Your task to perform on an android device: Open the settings Image 0: 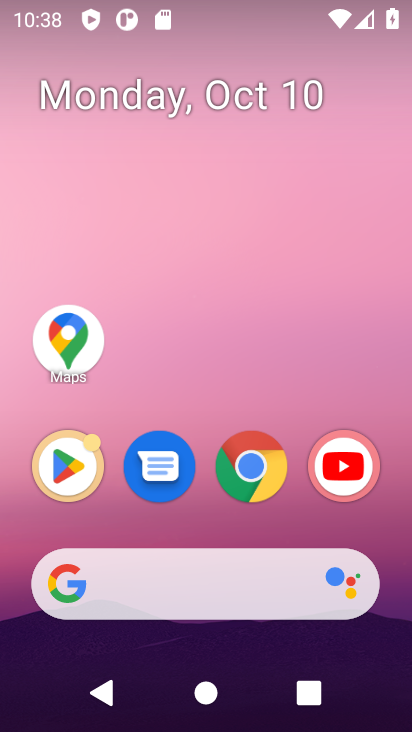
Step 0: press home button
Your task to perform on an android device: Open the settings Image 1: 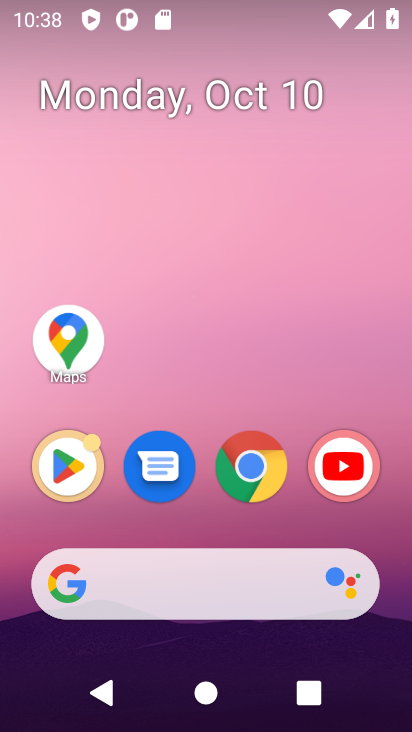
Step 1: drag from (203, 528) to (218, 56)
Your task to perform on an android device: Open the settings Image 2: 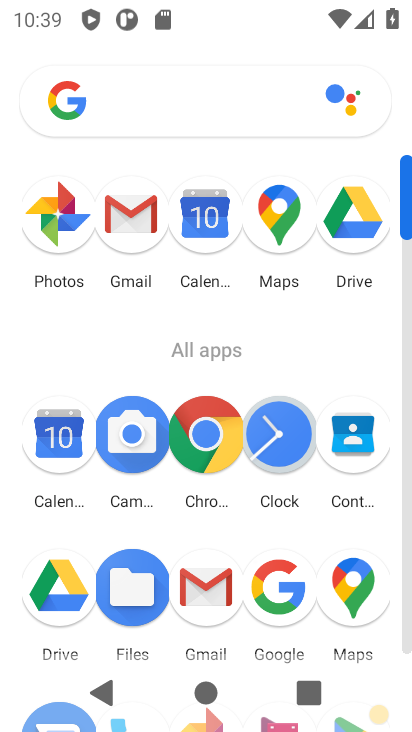
Step 2: drag from (257, 524) to (223, 93)
Your task to perform on an android device: Open the settings Image 3: 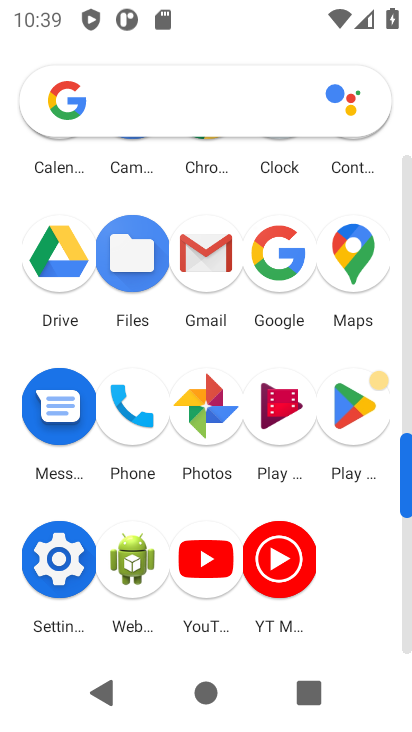
Step 3: click (55, 562)
Your task to perform on an android device: Open the settings Image 4: 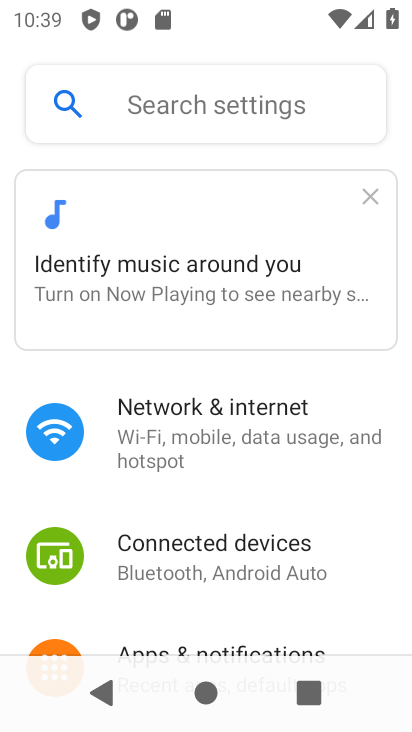
Step 4: task complete